Your task to perform on an android device: manage bookmarks in the chrome app Image 0: 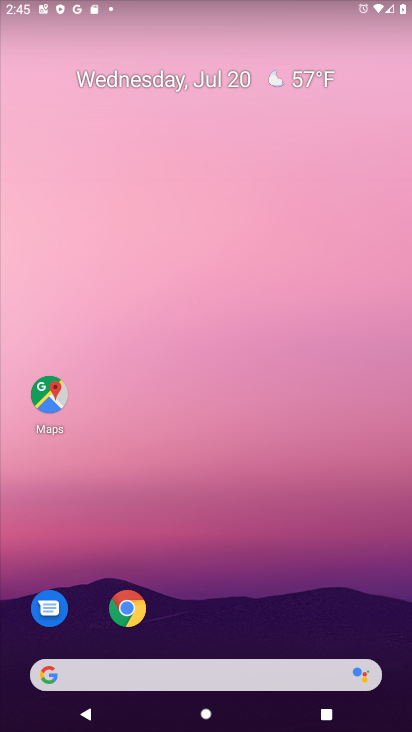
Step 0: click (136, 615)
Your task to perform on an android device: manage bookmarks in the chrome app Image 1: 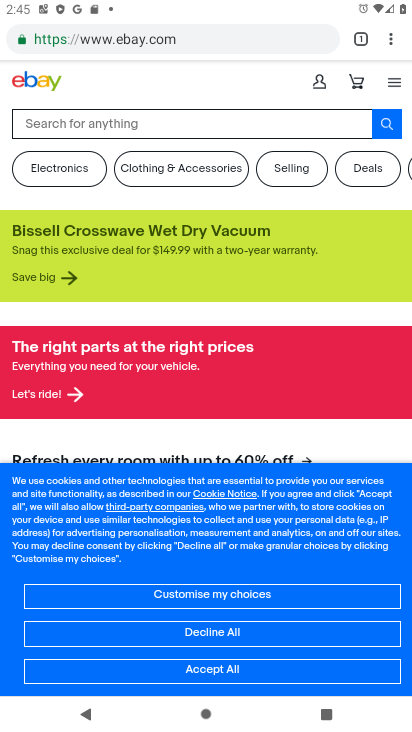
Step 1: click (391, 38)
Your task to perform on an android device: manage bookmarks in the chrome app Image 2: 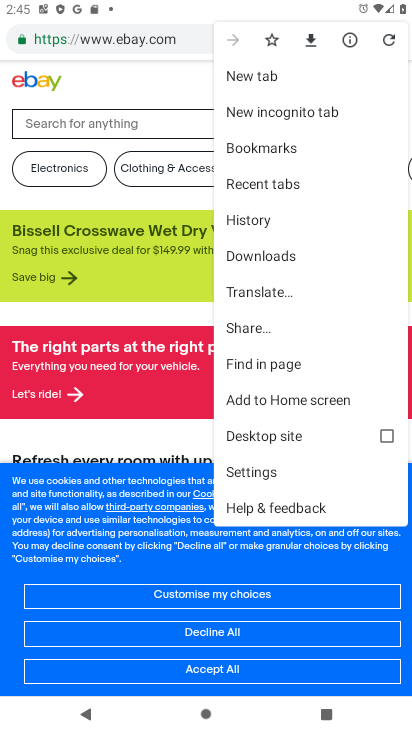
Step 2: click (284, 144)
Your task to perform on an android device: manage bookmarks in the chrome app Image 3: 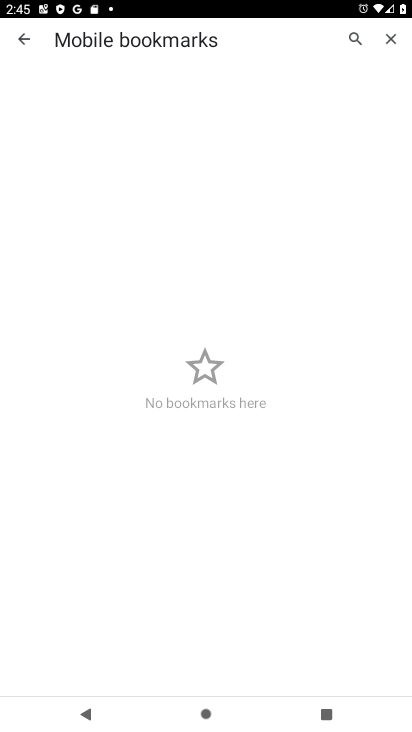
Step 3: task complete